Your task to perform on an android device: Go to display settings Image 0: 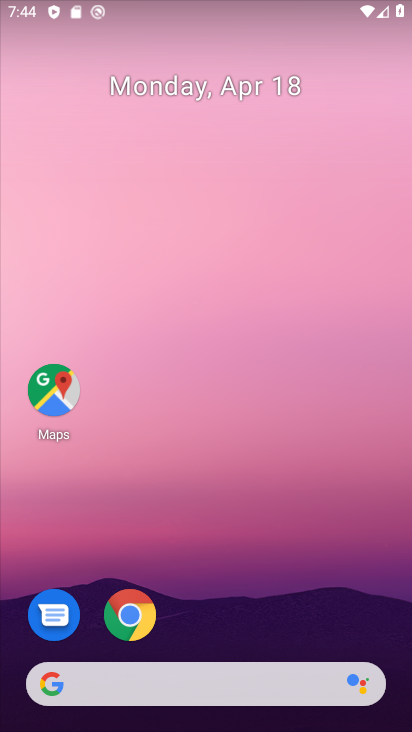
Step 0: drag from (326, 540) to (387, 94)
Your task to perform on an android device: Go to display settings Image 1: 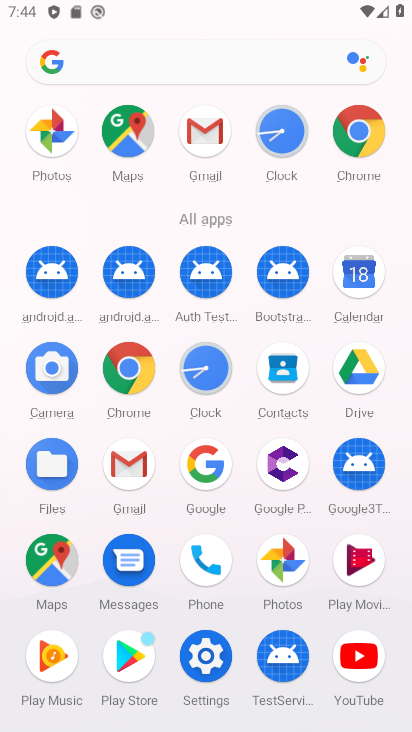
Step 1: click (210, 650)
Your task to perform on an android device: Go to display settings Image 2: 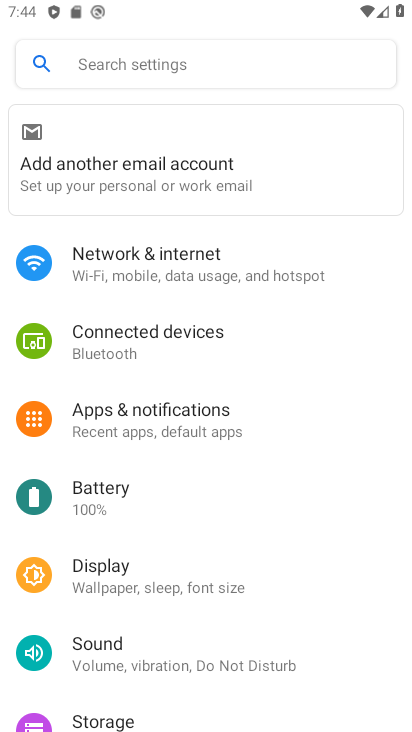
Step 2: click (220, 583)
Your task to perform on an android device: Go to display settings Image 3: 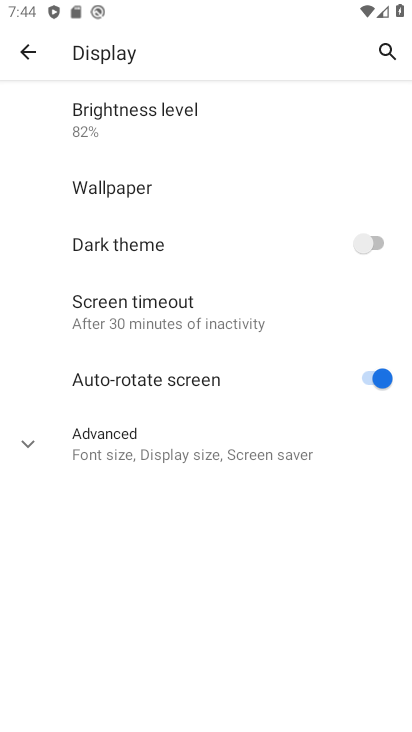
Step 3: task complete